Your task to perform on an android device: Go to Android settings Image 0: 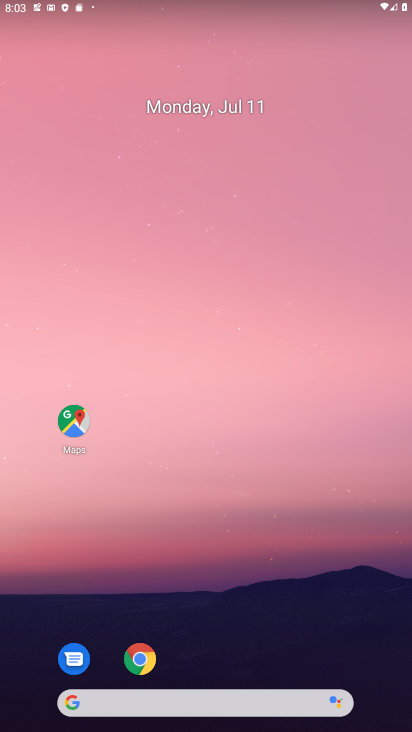
Step 0: drag from (191, 604) to (107, 67)
Your task to perform on an android device: Go to Android settings Image 1: 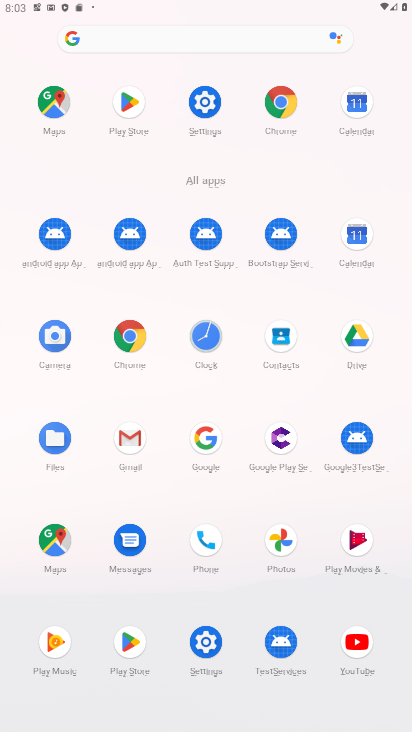
Step 1: click (195, 650)
Your task to perform on an android device: Go to Android settings Image 2: 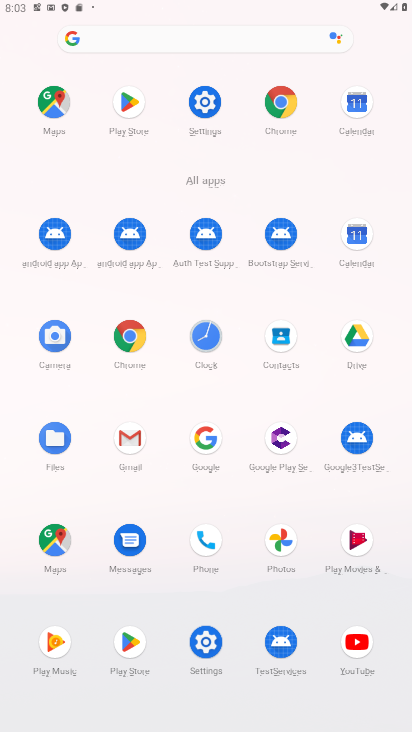
Step 2: click (206, 645)
Your task to perform on an android device: Go to Android settings Image 3: 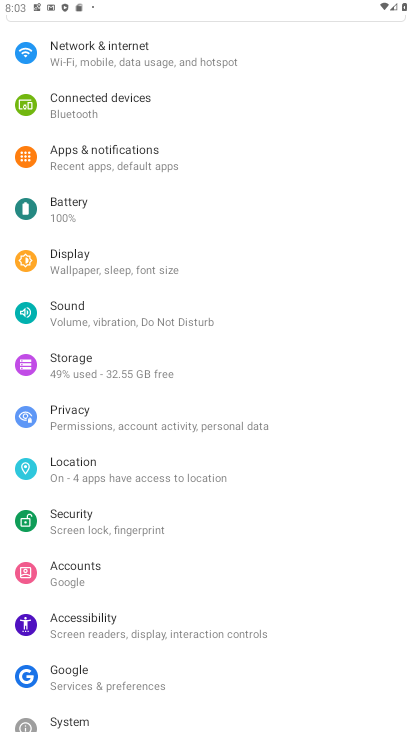
Step 3: drag from (125, 557) to (58, 259)
Your task to perform on an android device: Go to Android settings Image 4: 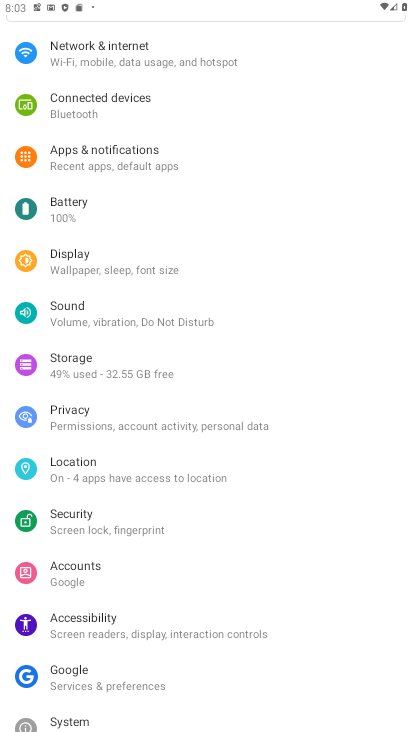
Step 4: drag from (105, 448) to (105, 141)
Your task to perform on an android device: Go to Android settings Image 5: 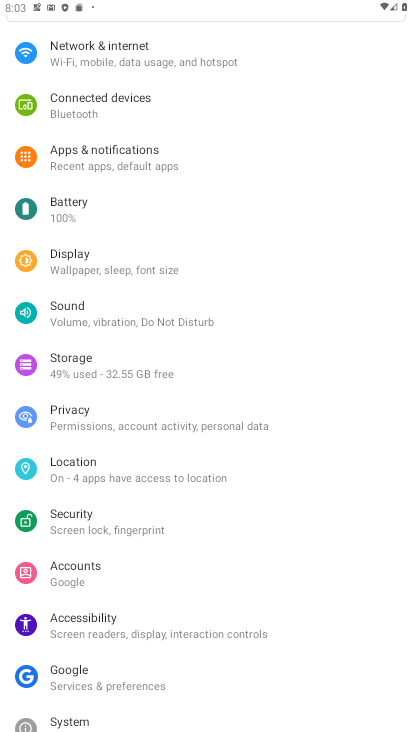
Step 5: drag from (108, 563) to (130, 329)
Your task to perform on an android device: Go to Android settings Image 6: 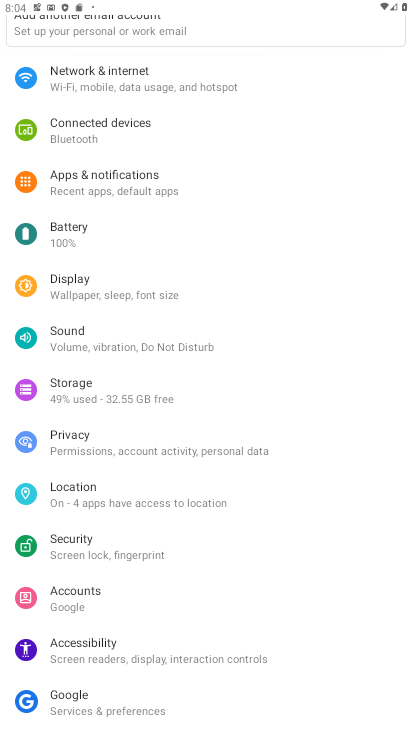
Step 6: drag from (92, 560) to (79, 314)
Your task to perform on an android device: Go to Android settings Image 7: 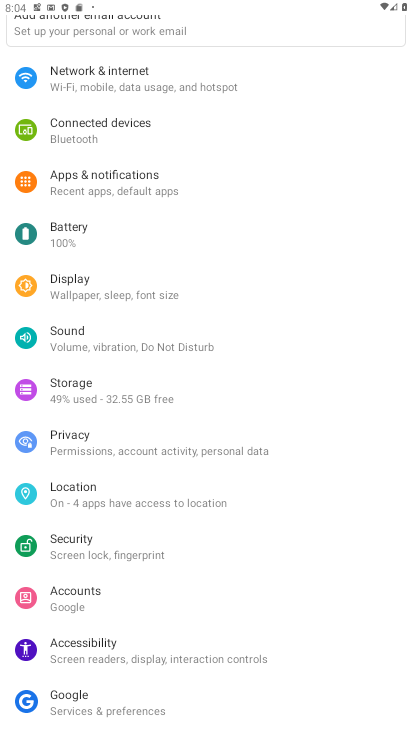
Step 7: drag from (94, 586) to (72, 151)
Your task to perform on an android device: Go to Android settings Image 8: 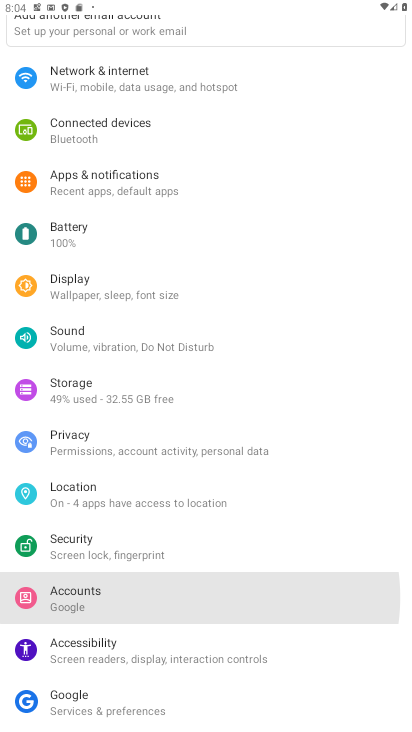
Step 8: drag from (148, 629) to (110, 184)
Your task to perform on an android device: Go to Android settings Image 9: 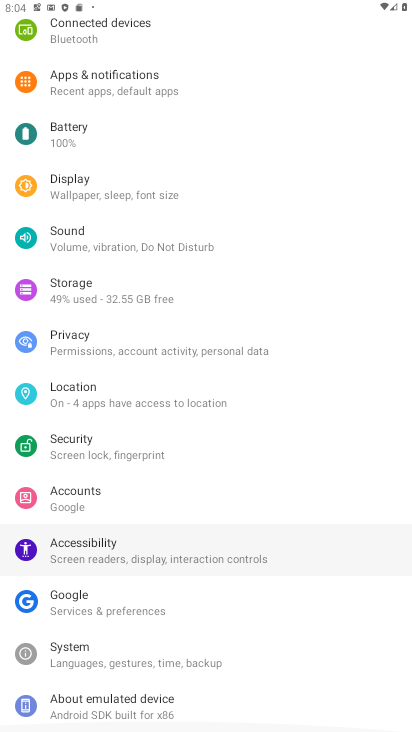
Step 9: drag from (154, 543) to (114, 160)
Your task to perform on an android device: Go to Android settings Image 10: 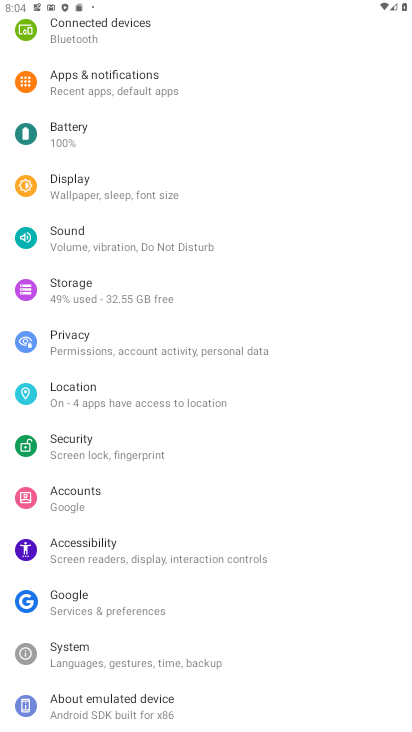
Step 10: click (96, 711)
Your task to perform on an android device: Go to Android settings Image 11: 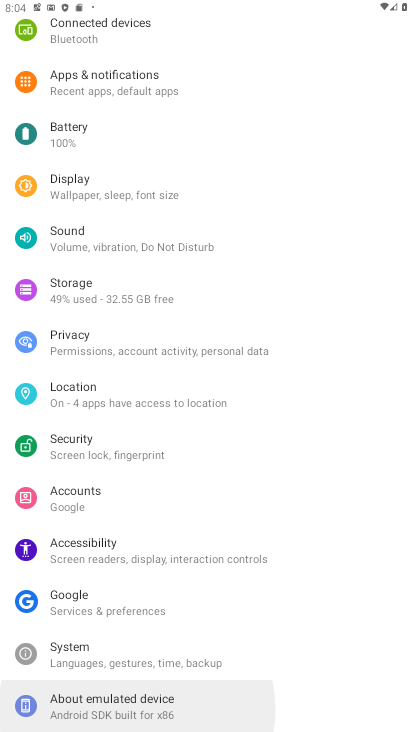
Step 11: click (96, 712)
Your task to perform on an android device: Go to Android settings Image 12: 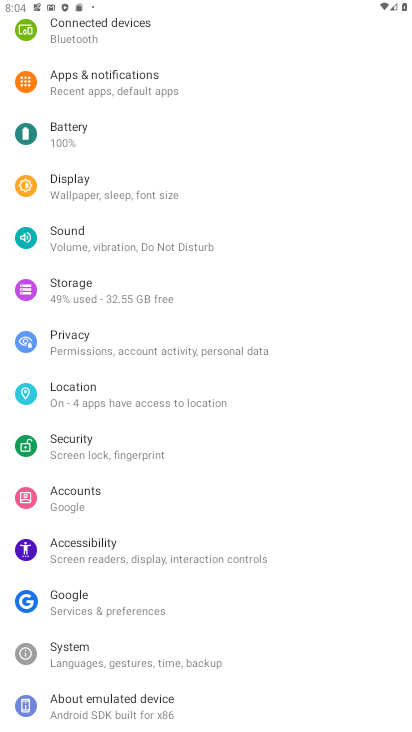
Step 12: click (107, 710)
Your task to perform on an android device: Go to Android settings Image 13: 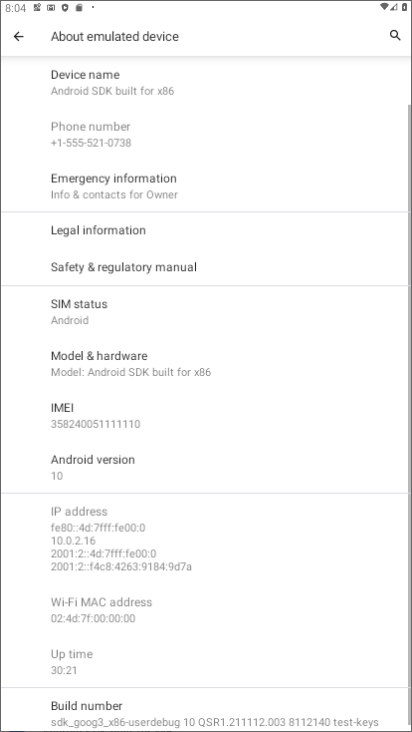
Step 13: click (108, 709)
Your task to perform on an android device: Go to Android settings Image 14: 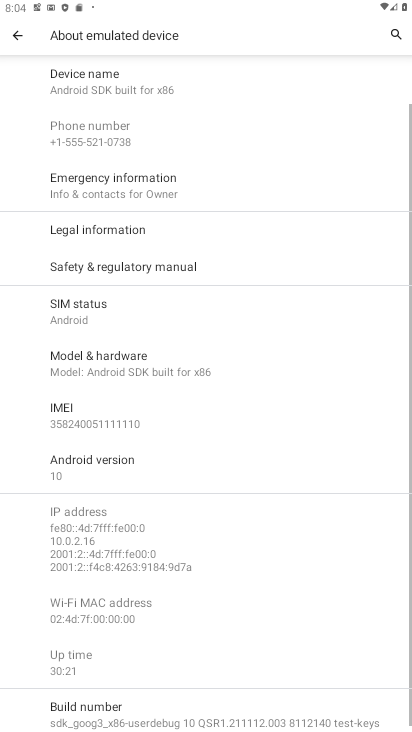
Step 14: click (110, 709)
Your task to perform on an android device: Go to Android settings Image 15: 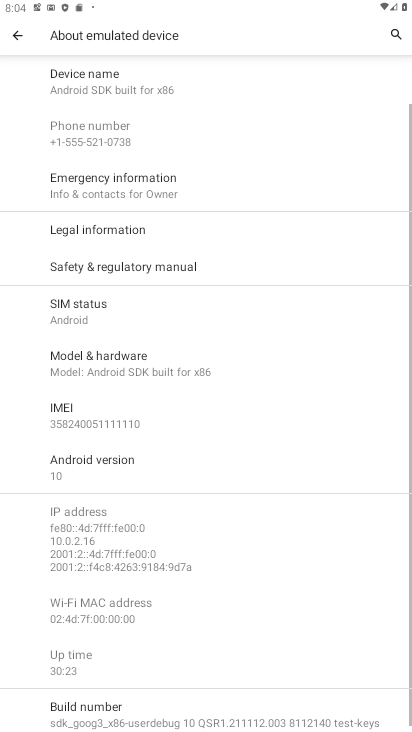
Step 15: task complete